Your task to perform on an android device: change text size in settings app Image 0: 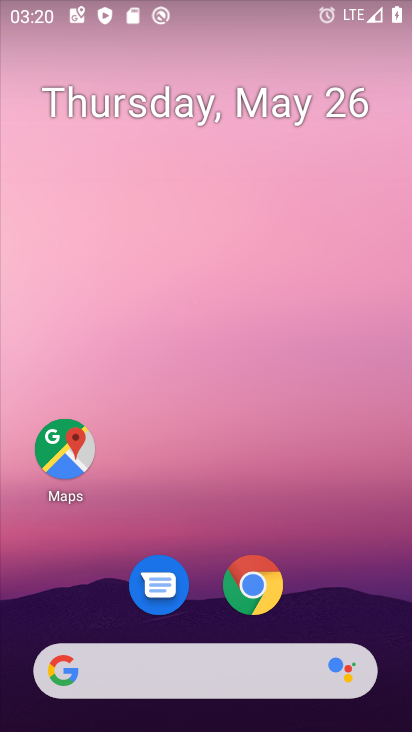
Step 0: drag from (268, 491) to (288, 56)
Your task to perform on an android device: change text size in settings app Image 1: 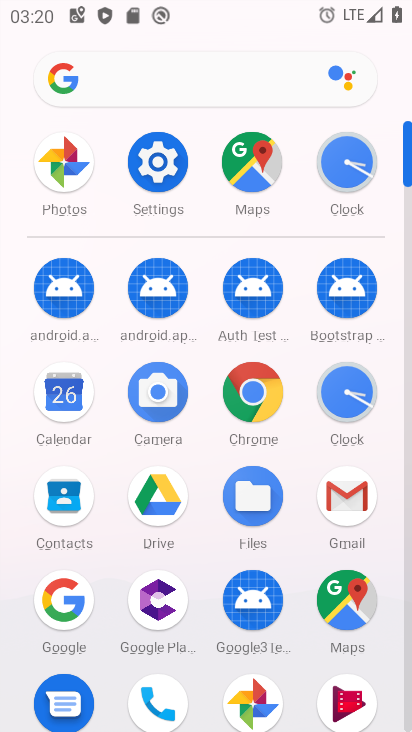
Step 1: click (162, 173)
Your task to perform on an android device: change text size in settings app Image 2: 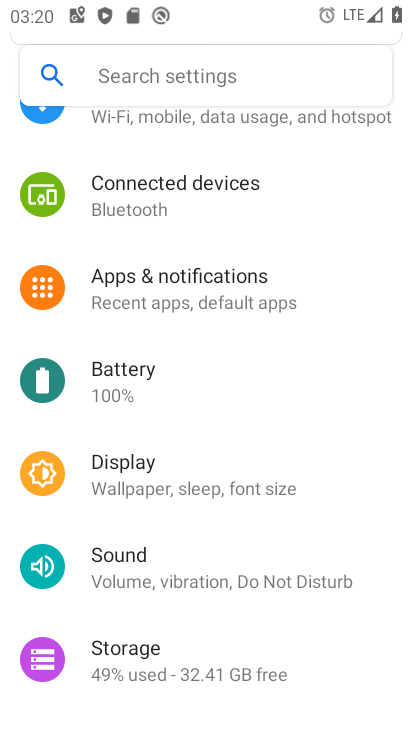
Step 2: click (141, 471)
Your task to perform on an android device: change text size in settings app Image 3: 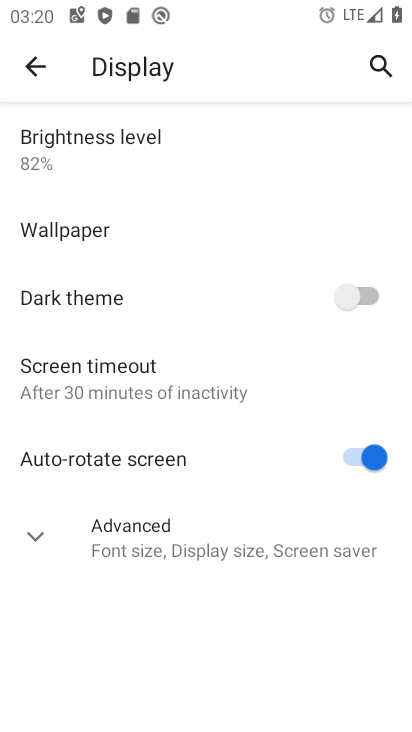
Step 3: click (37, 532)
Your task to perform on an android device: change text size in settings app Image 4: 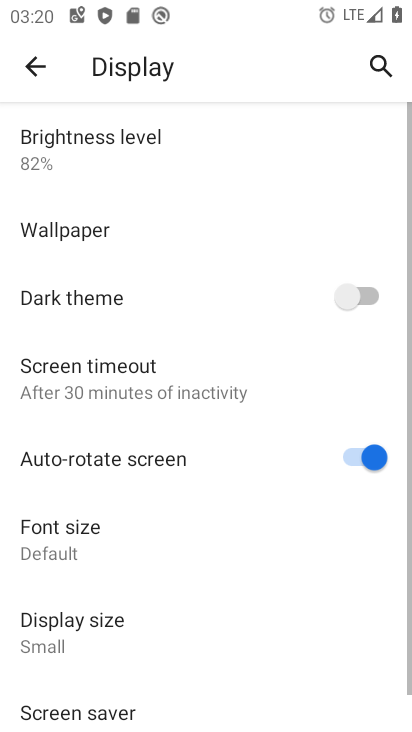
Step 4: drag from (224, 540) to (272, 280)
Your task to perform on an android device: change text size in settings app Image 5: 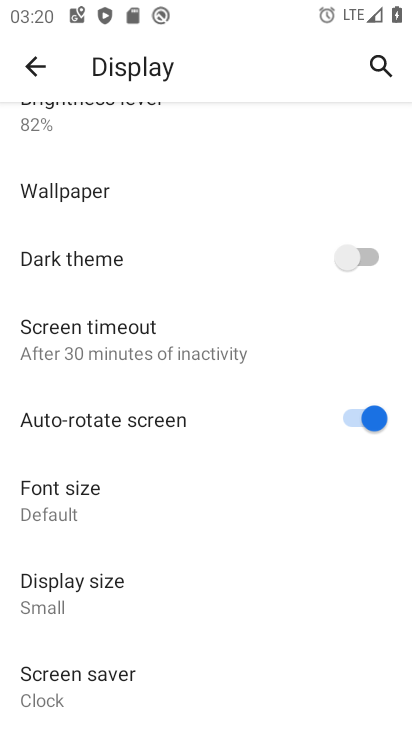
Step 5: click (93, 509)
Your task to perform on an android device: change text size in settings app Image 6: 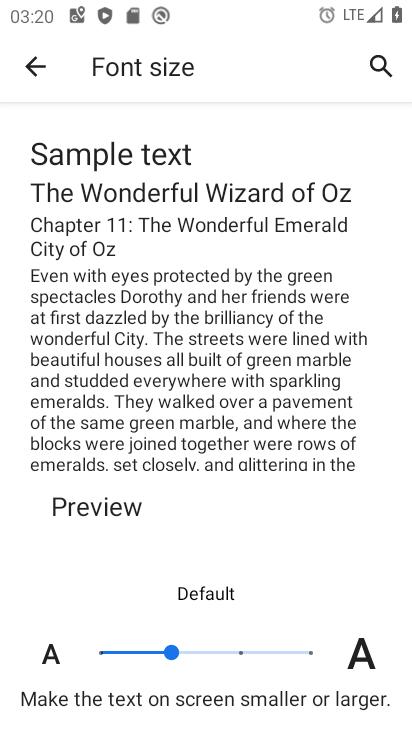
Step 6: click (235, 649)
Your task to perform on an android device: change text size in settings app Image 7: 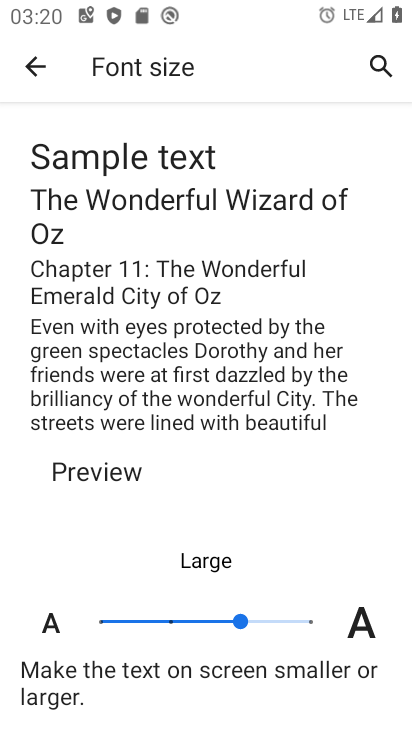
Step 7: click (41, 67)
Your task to perform on an android device: change text size in settings app Image 8: 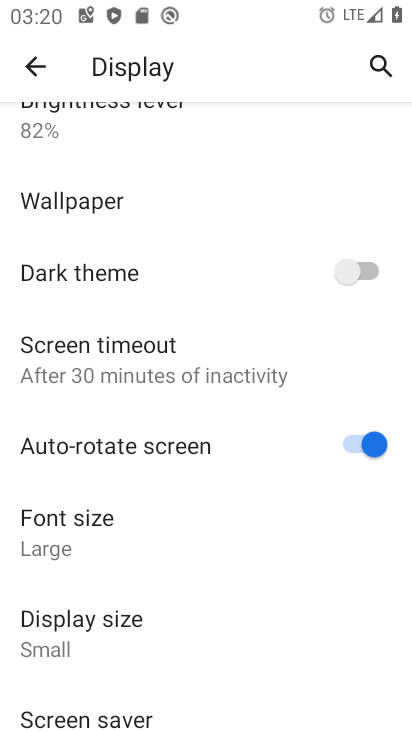
Step 8: task complete